Your task to perform on an android device: stop showing notifications on the lock screen Image 0: 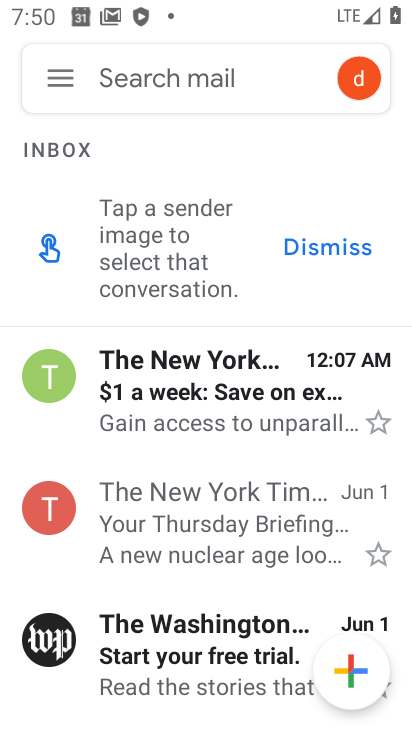
Step 0: press home button
Your task to perform on an android device: stop showing notifications on the lock screen Image 1: 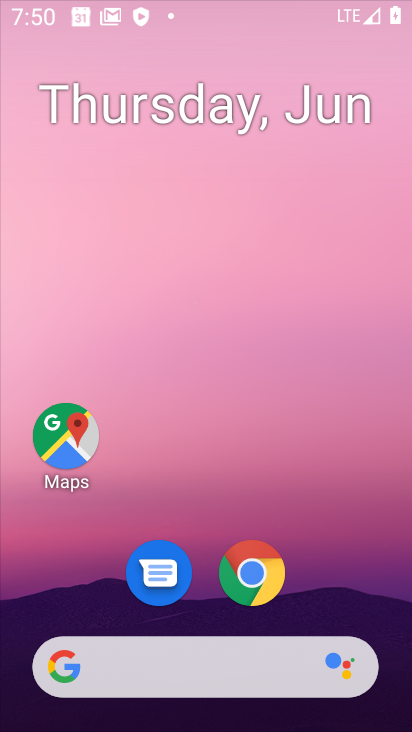
Step 1: drag from (247, 534) to (267, 166)
Your task to perform on an android device: stop showing notifications on the lock screen Image 2: 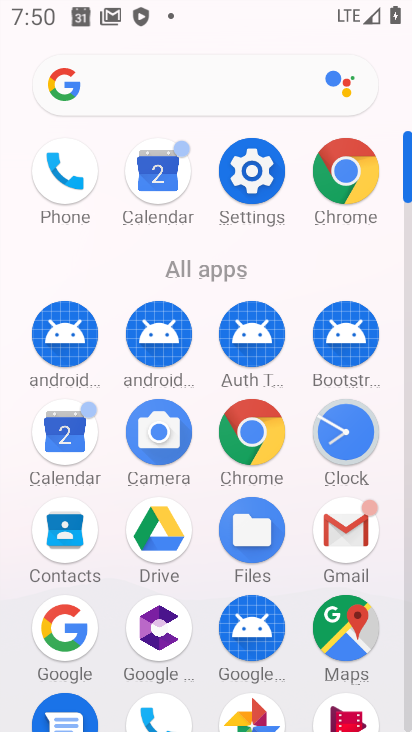
Step 2: click (255, 173)
Your task to perform on an android device: stop showing notifications on the lock screen Image 3: 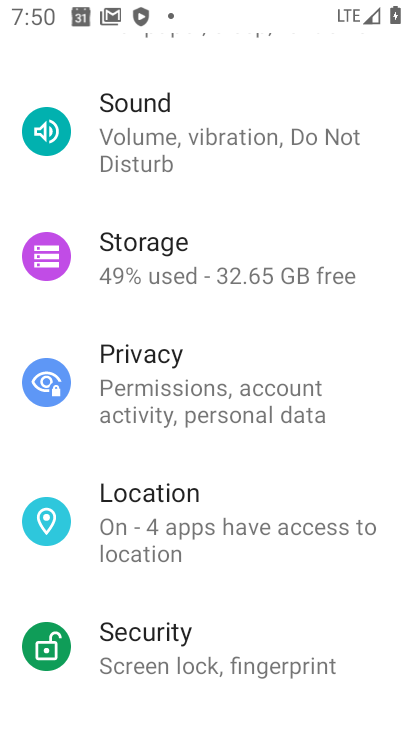
Step 3: drag from (196, 173) to (229, 625)
Your task to perform on an android device: stop showing notifications on the lock screen Image 4: 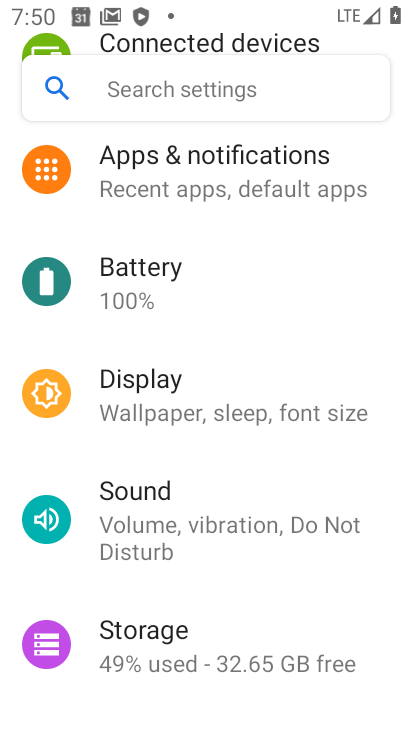
Step 4: drag from (187, 226) to (187, 531)
Your task to perform on an android device: stop showing notifications on the lock screen Image 5: 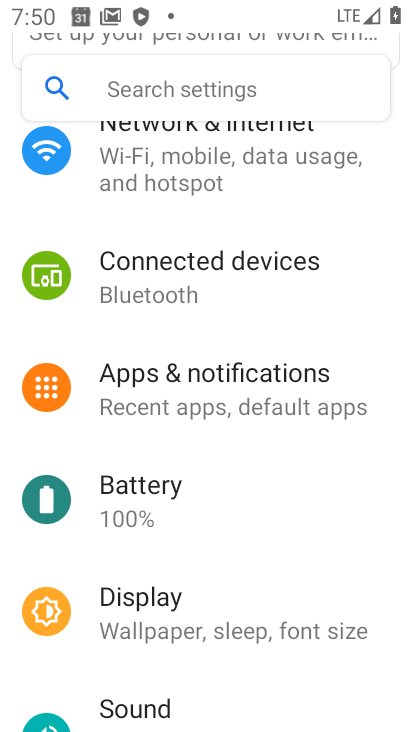
Step 5: click (198, 395)
Your task to perform on an android device: stop showing notifications on the lock screen Image 6: 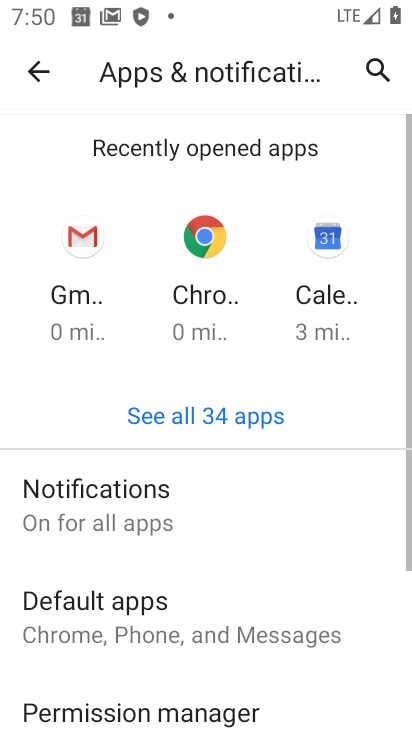
Step 6: click (164, 504)
Your task to perform on an android device: stop showing notifications on the lock screen Image 7: 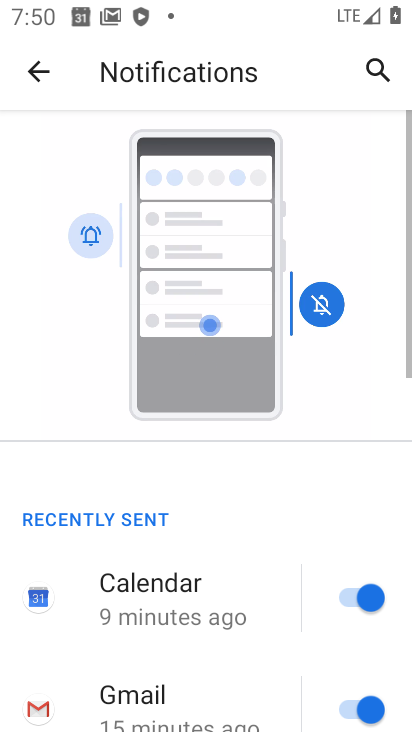
Step 7: drag from (191, 592) to (283, 173)
Your task to perform on an android device: stop showing notifications on the lock screen Image 8: 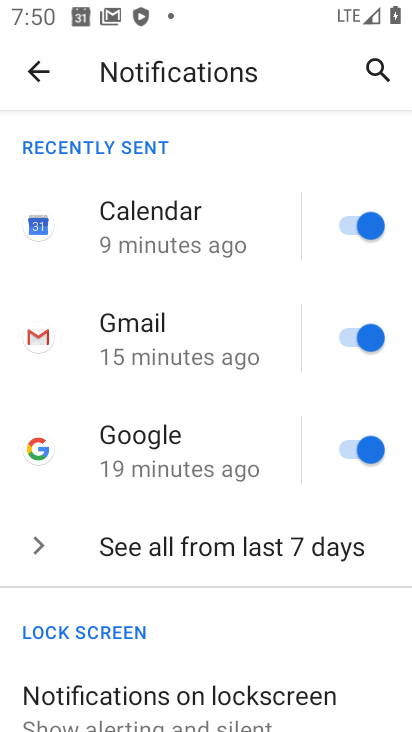
Step 8: drag from (240, 586) to (272, 330)
Your task to perform on an android device: stop showing notifications on the lock screen Image 9: 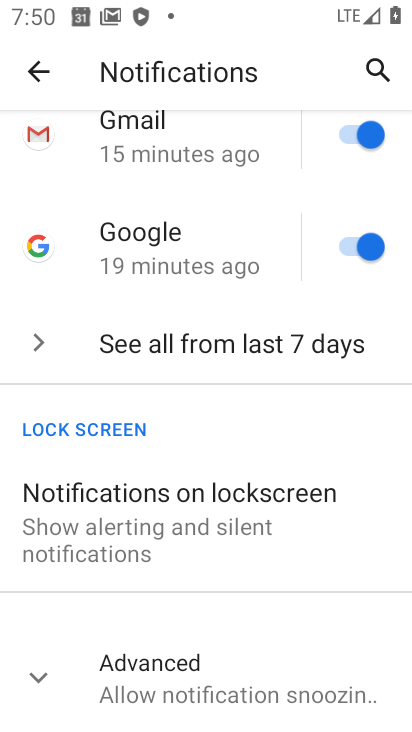
Step 9: click (149, 480)
Your task to perform on an android device: stop showing notifications on the lock screen Image 10: 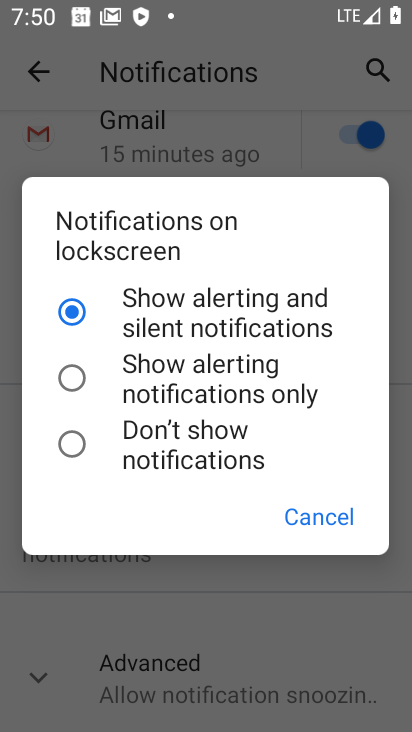
Step 10: click (115, 448)
Your task to perform on an android device: stop showing notifications on the lock screen Image 11: 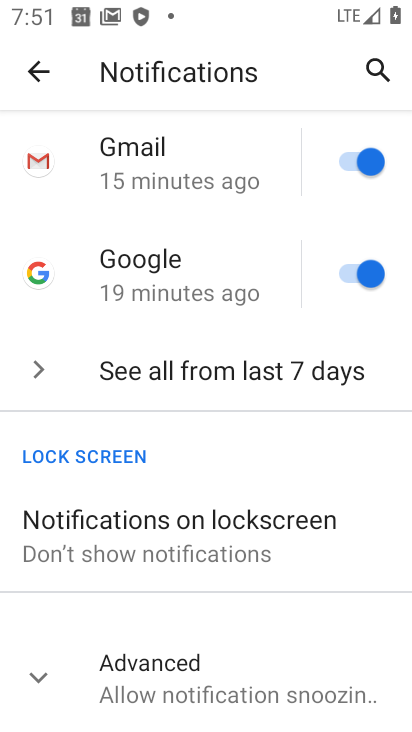
Step 11: task complete